Your task to perform on an android device: change the clock display to show seconds Image 0: 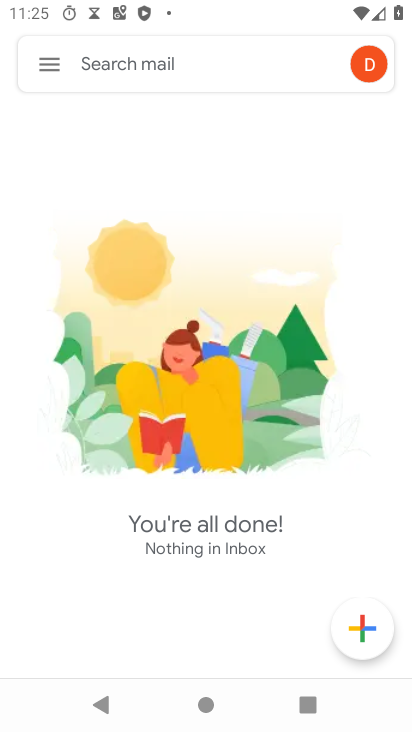
Step 0: press home button
Your task to perform on an android device: change the clock display to show seconds Image 1: 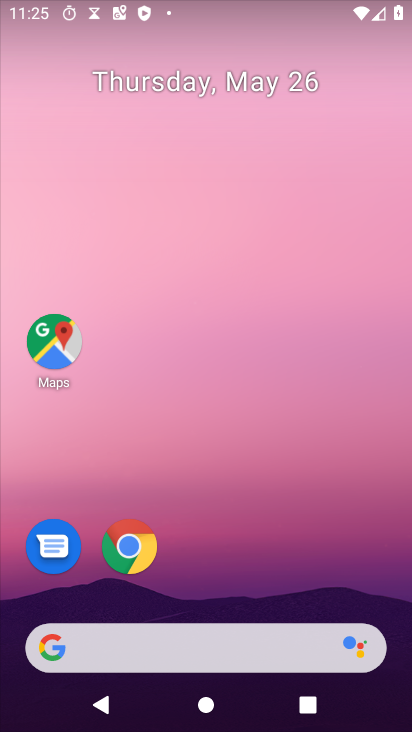
Step 1: drag from (371, 598) to (385, 126)
Your task to perform on an android device: change the clock display to show seconds Image 2: 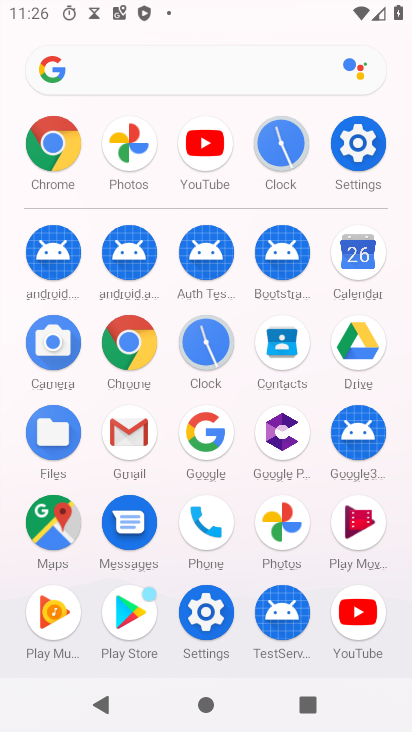
Step 2: click (205, 333)
Your task to perform on an android device: change the clock display to show seconds Image 3: 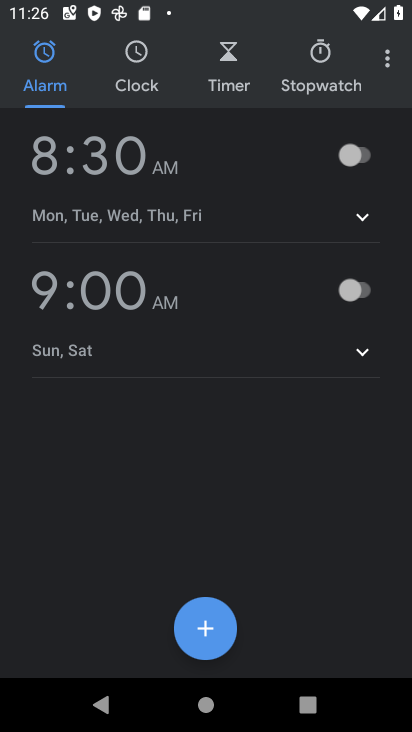
Step 3: drag from (396, 50) to (266, 113)
Your task to perform on an android device: change the clock display to show seconds Image 4: 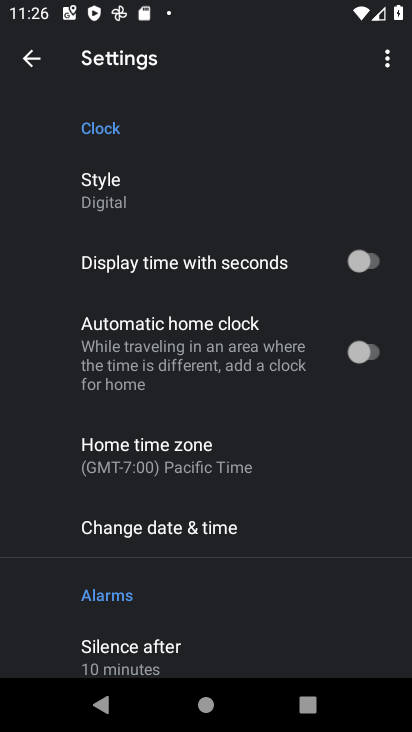
Step 4: drag from (261, 578) to (295, 285)
Your task to perform on an android device: change the clock display to show seconds Image 5: 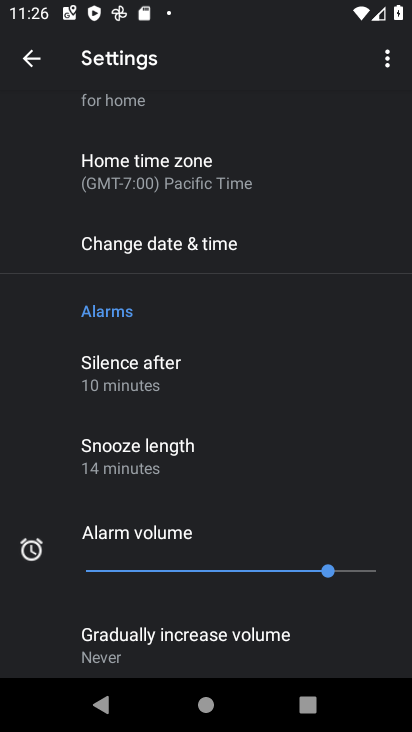
Step 5: drag from (296, 282) to (272, 600)
Your task to perform on an android device: change the clock display to show seconds Image 6: 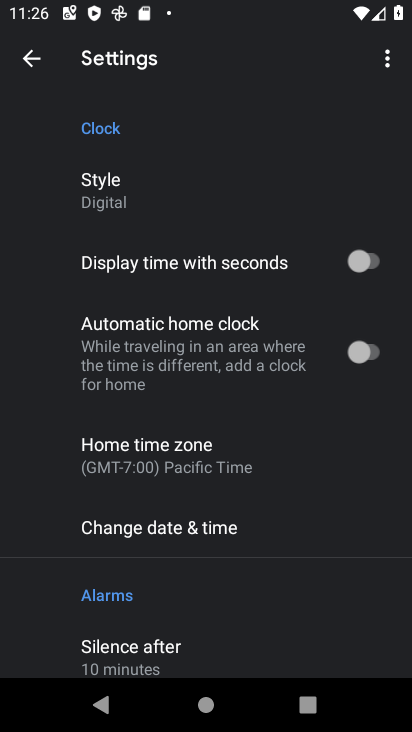
Step 6: click (379, 267)
Your task to perform on an android device: change the clock display to show seconds Image 7: 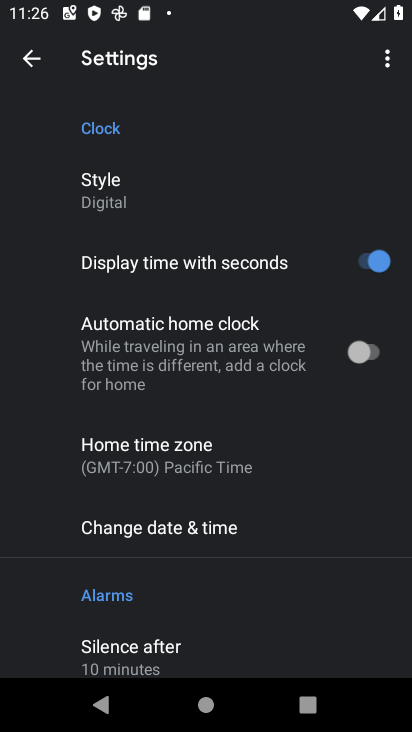
Step 7: task complete